Your task to perform on an android device: all mails in gmail Image 0: 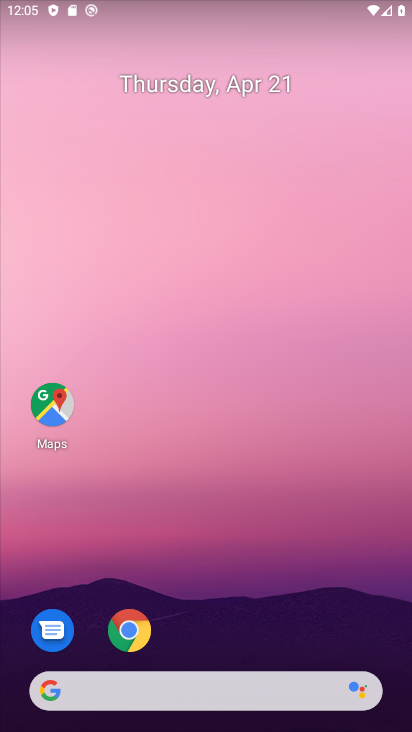
Step 0: drag from (327, 592) to (303, 113)
Your task to perform on an android device: all mails in gmail Image 1: 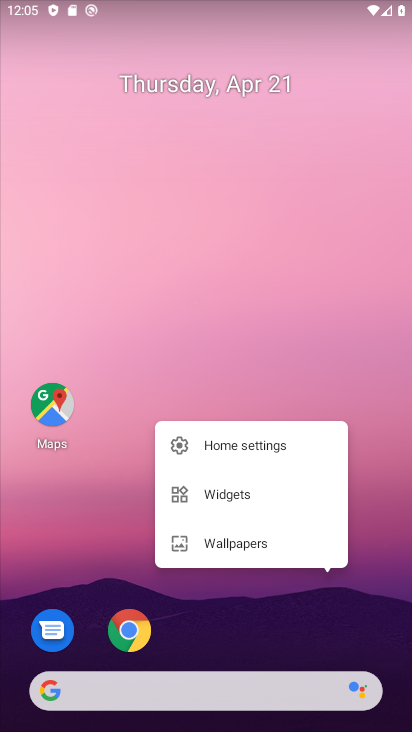
Step 1: click (329, 602)
Your task to perform on an android device: all mails in gmail Image 2: 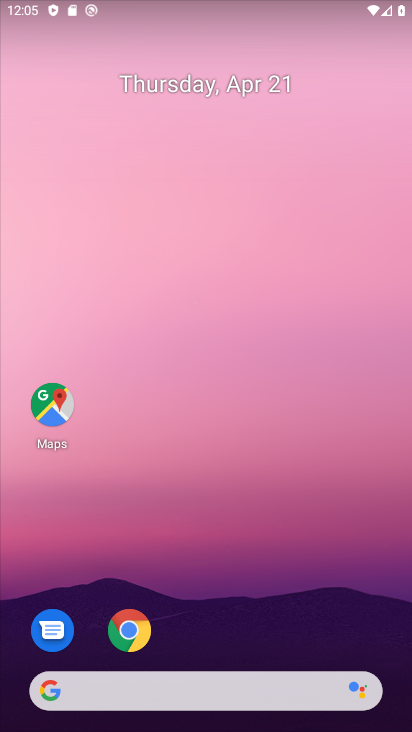
Step 2: drag from (251, 560) to (257, 119)
Your task to perform on an android device: all mails in gmail Image 3: 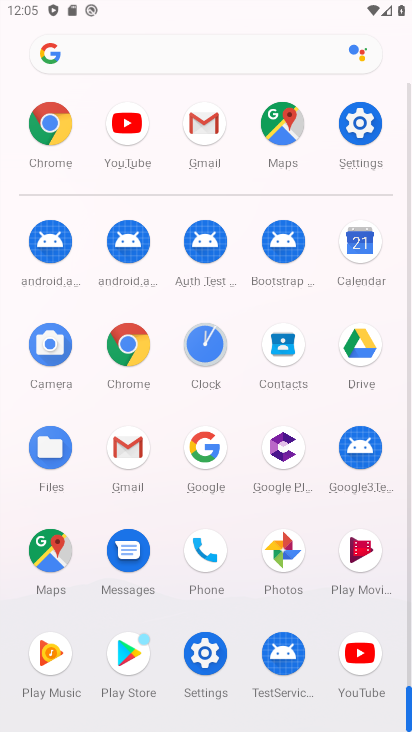
Step 3: click (210, 126)
Your task to perform on an android device: all mails in gmail Image 4: 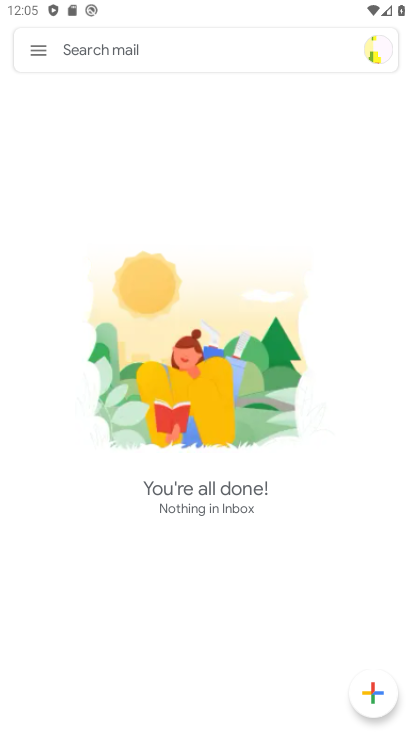
Step 4: click (32, 51)
Your task to perform on an android device: all mails in gmail Image 5: 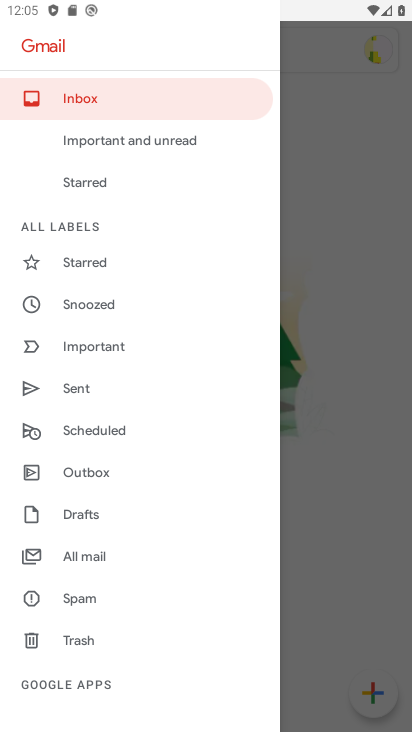
Step 5: drag from (178, 566) to (248, 274)
Your task to perform on an android device: all mails in gmail Image 6: 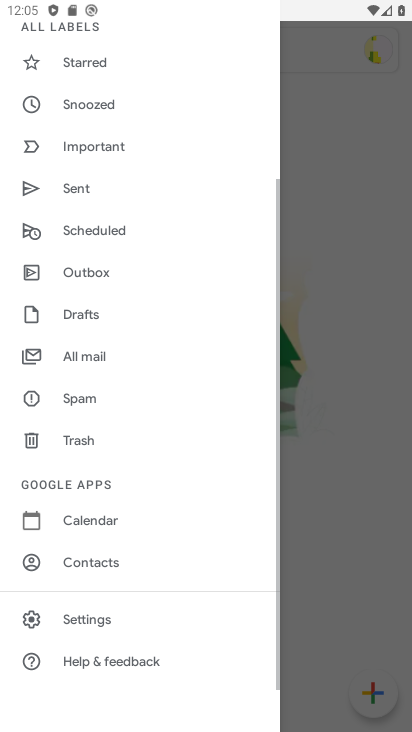
Step 6: click (74, 360)
Your task to perform on an android device: all mails in gmail Image 7: 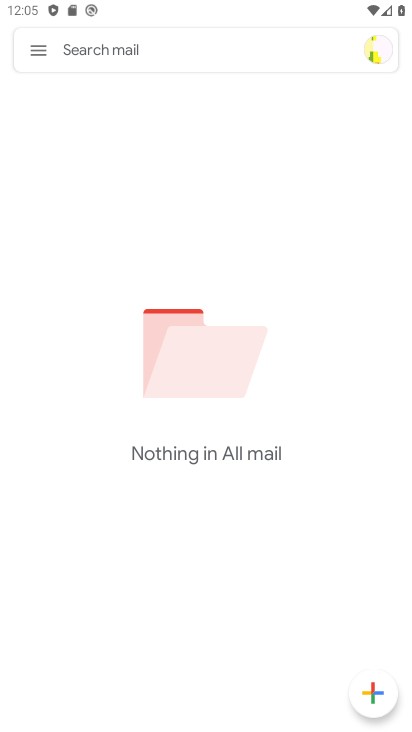
Step 7: task complete